Your task to perform on an android device: change the clock display to show seconds Image 0: 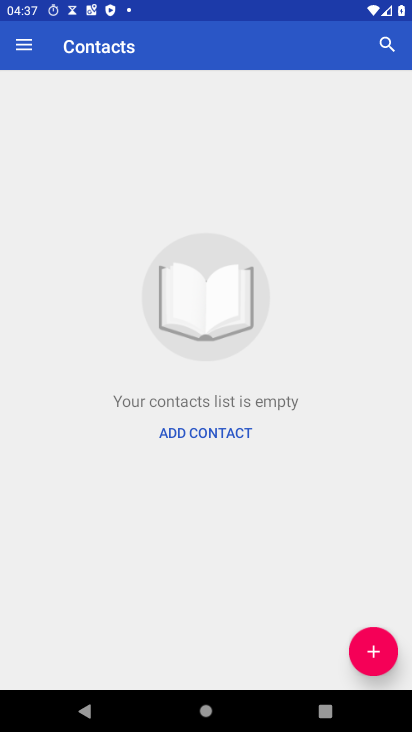
Step 0: press home button
Your task to perform on an android device: change the clock display to show seconds Image 1: 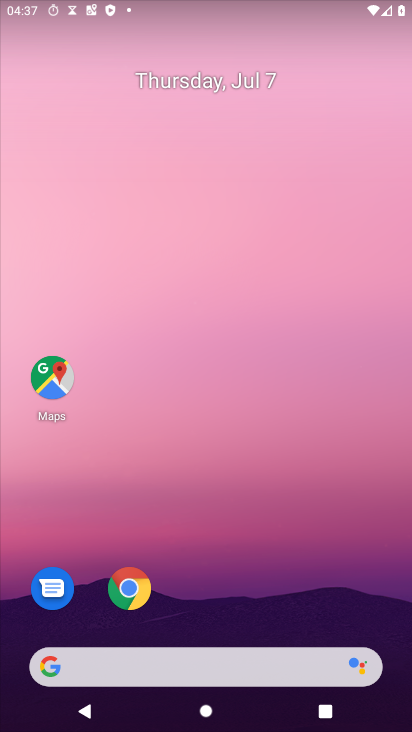
Step 1: drag from (249, 562) to (244, 161)
Your task to perform on an android device: change the clock display to show seconds Image 2: 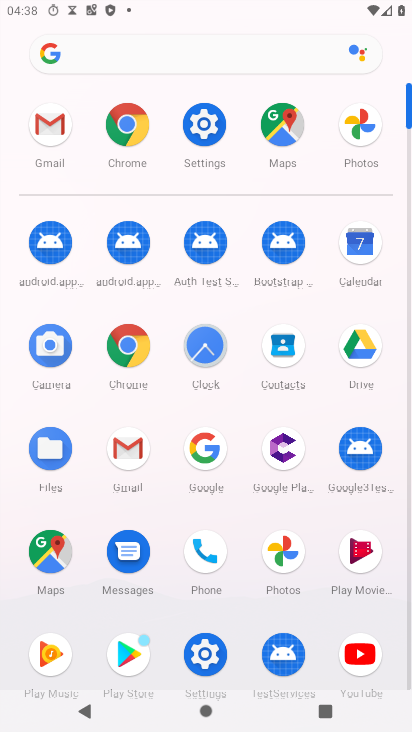
Step 2: click (207, 360)
Your task to perform on an android device: change the clock display to show seconds Image 3: 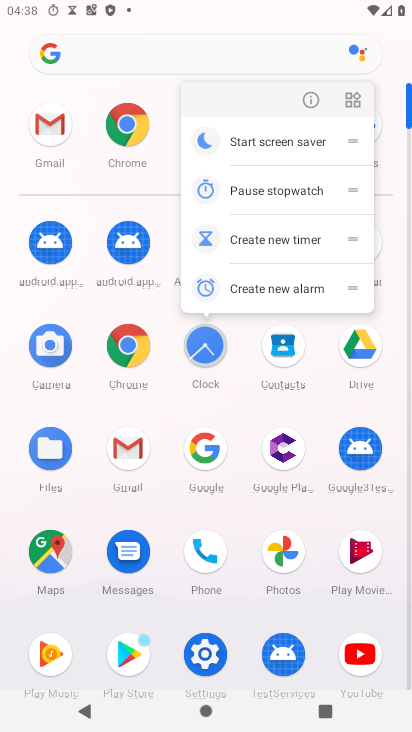
Step 3: click (203, 338)
Your task to perform on an android device: change the clock display to show seconds Image 4: 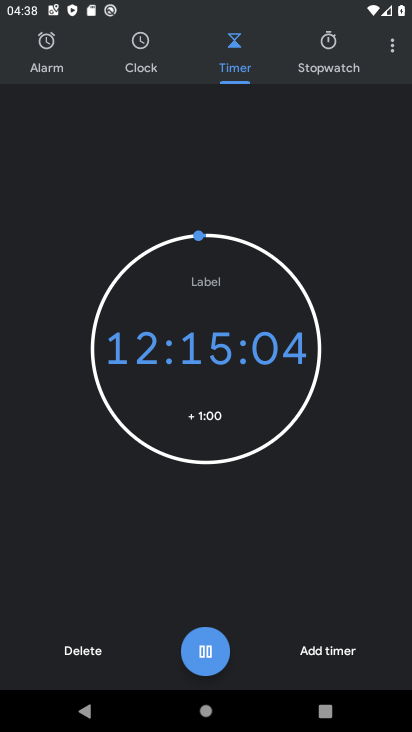
Step 4: click (400, 44)
Your task to perform on an android device: change the clock display to show seconds Image 5: 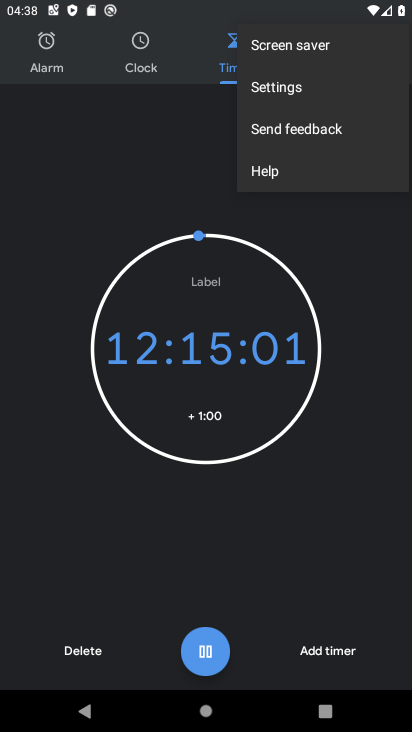
Step 5: click (265, 95)
Your task to perform on an android device: change the clock display to show seconds Image 6: 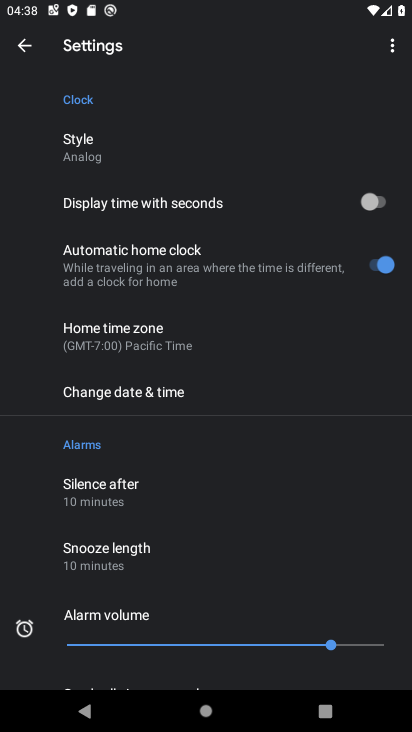
Step 6: click (370, 200)
Your task to perform on an android device: change the clock display to show seconds Image 7: 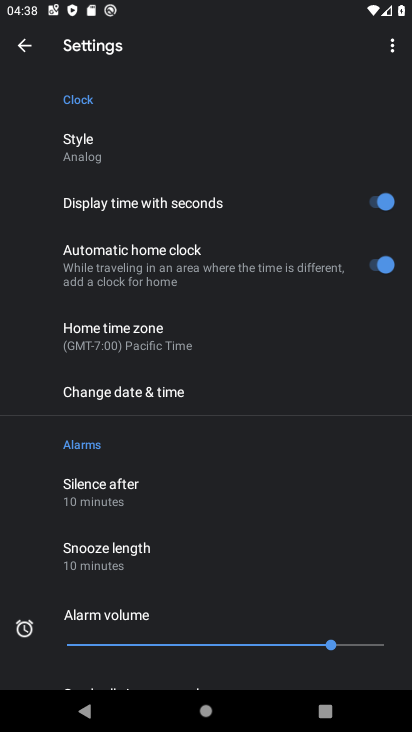
Step 7: task complete